Your task to perform on an android device: turn on data saver in the chrome app Image 0: 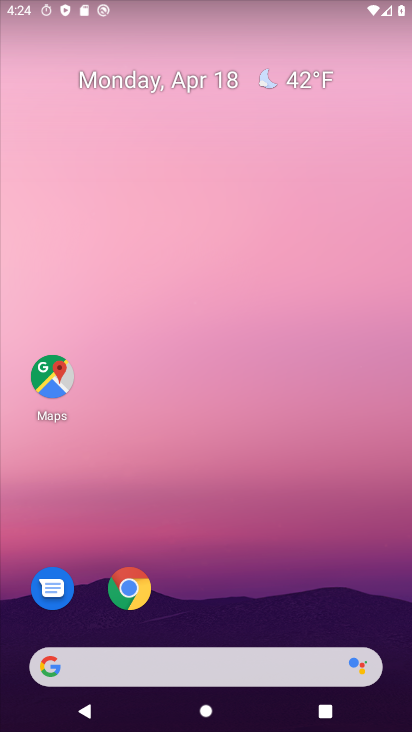
Step 0: click (129, 574)
Your task to perform on an android device: turn on data saver in the chrome app Image 1: 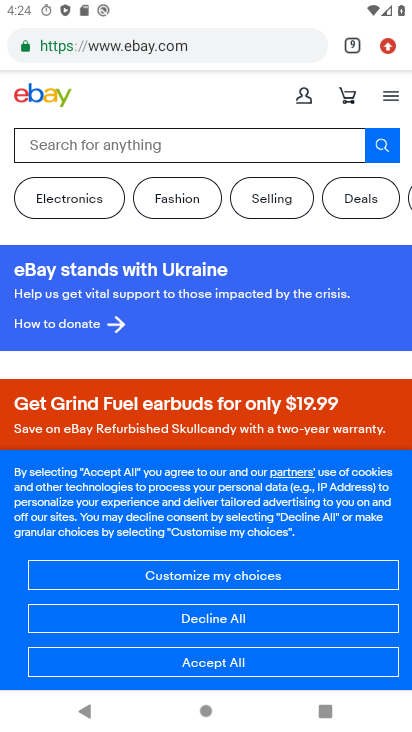
Step 1: click (386, 59)
Your task to perform on an android device: turn on data saver in the chrome app Image 2: 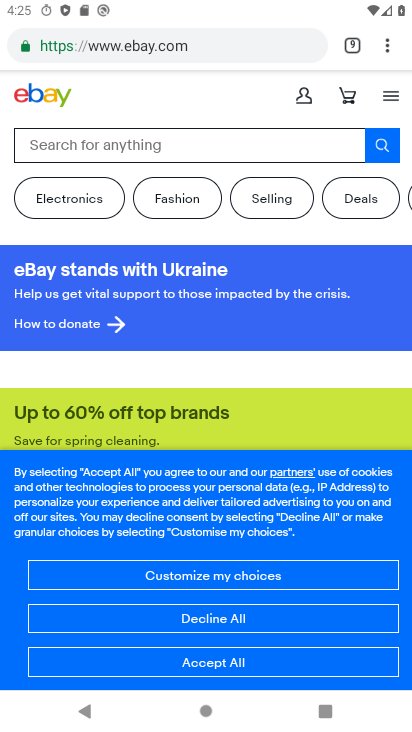
Step 2: click (389, 52)
Your task to perform on an android device: turn on data saver in the chrome app Image 3: 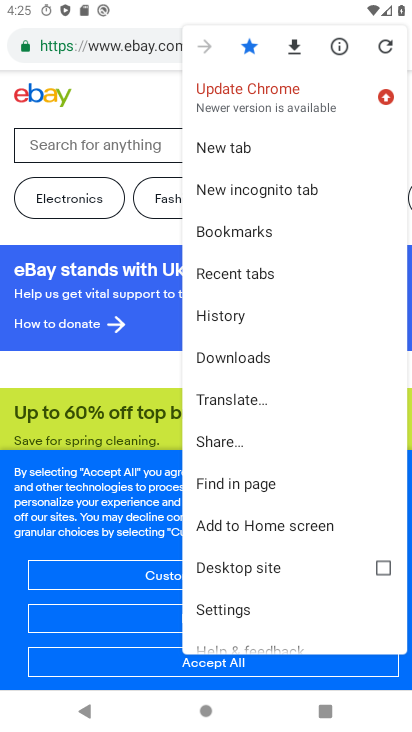
Step 3: click (248, 613)
Your task to perform on an android device: turn on data saver in the chrome app Image 4: 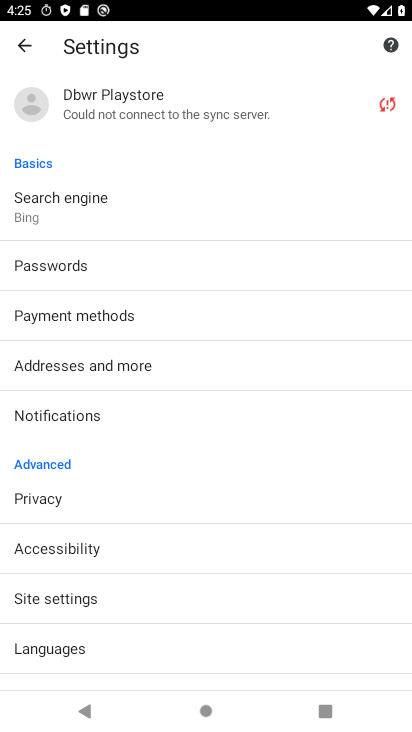
Step 4: drag from (124, 653) to (195, 155)
Your task to perform on an android device: turn on data saver in the chrome app Image 5: 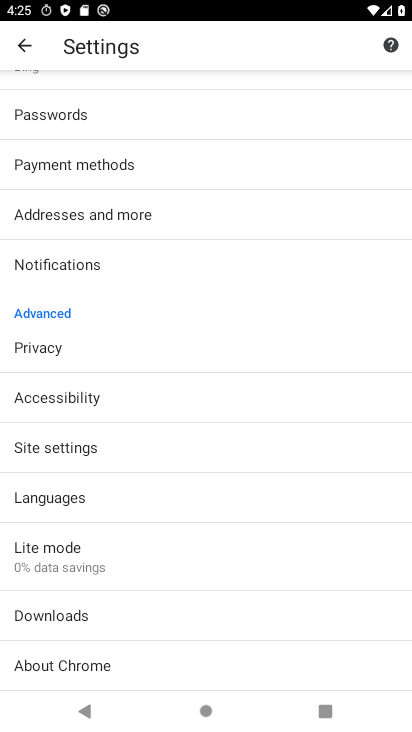
Step 5: click (72, 560)
Your task to perform on an android device: turn on data saver in the chrome app Image 6: 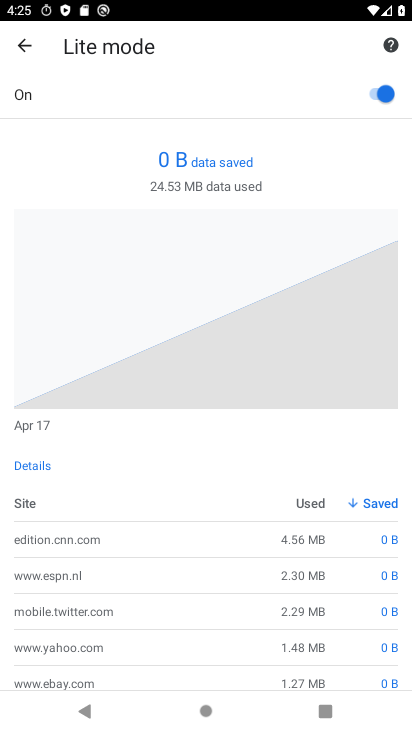
Step 6: task complete